Your task to perform on an android device: Open Youtube and go to the subscriptions tab Image 0: 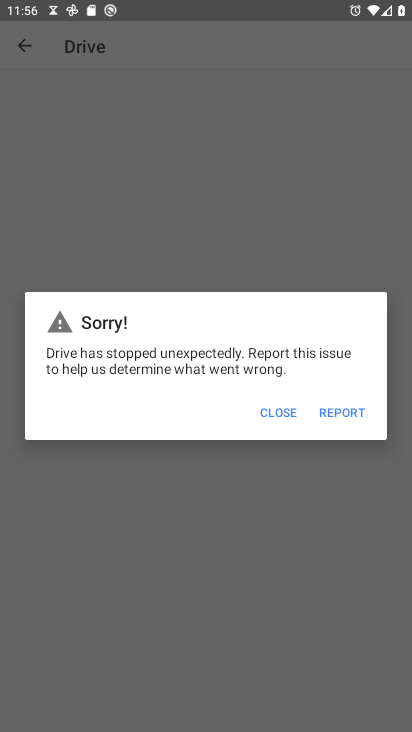
Step 0: press home button
Your task to perform on an android device: Open Youtube and go to the subscriptions tab Image 1: 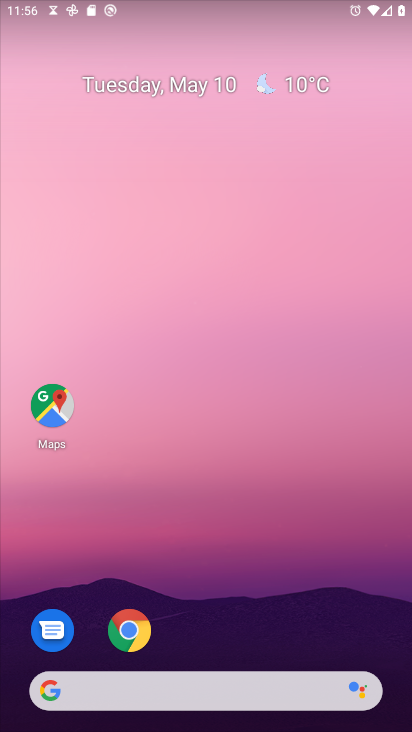
Step 1: drag from (213, 609) to (221, 78)
Your task to perform on an android device: Open Youtube and go to the subscriptions tab Image 2: 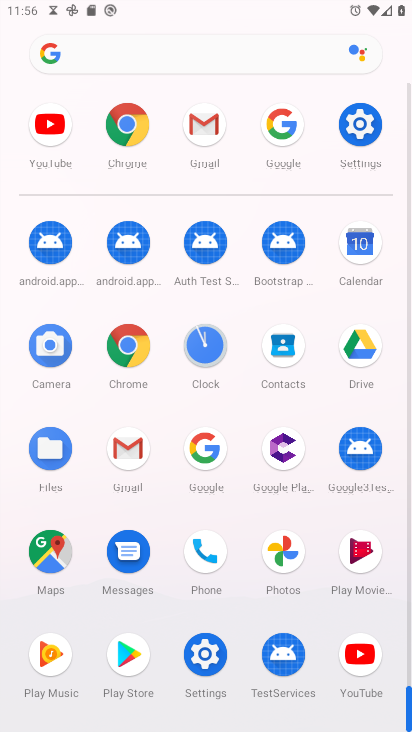
Step 2: click (369, 648)
Your task to perform on an android device: Open Youtube and go to the subscriptions tab Image 3: 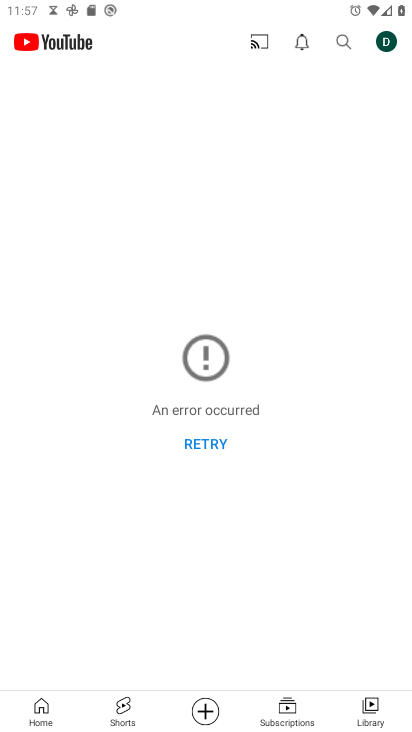
Step 3: click (296, 711)
Your task to perform on an android device: Open Youtube and go to the subscriptions tab Image 4: 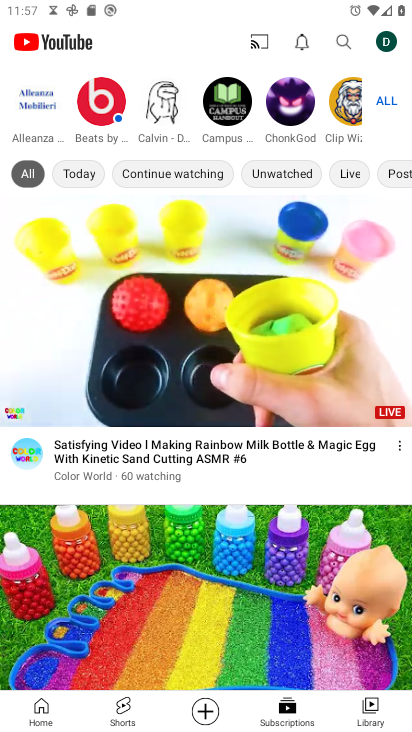
Step 4: task complete